Your task to perform on an android device: set default search engine in the chrome app Image 0: 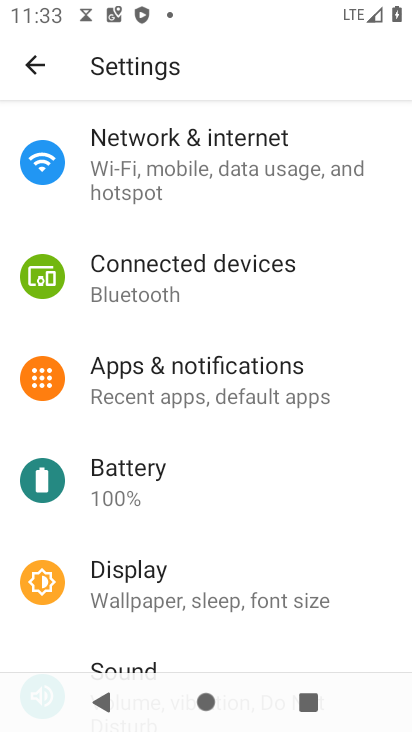
Step 0: press home button
Your task to perform on an android device: set default search engine in the chrome app Image 1: 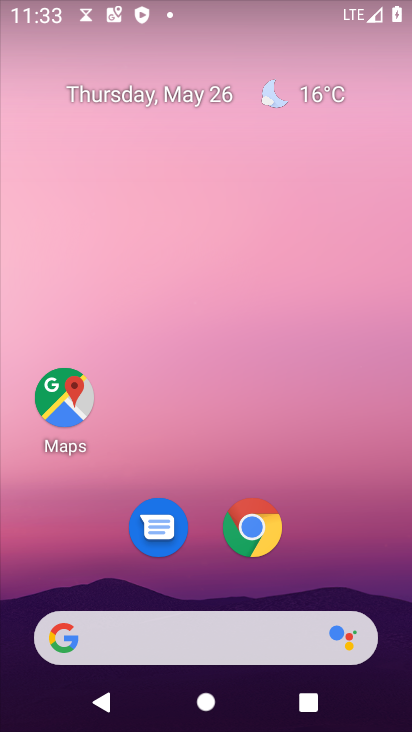
Step 1: click (251, 524)
Your task to perform on an android device: set default search engine in the chrome app Image 2: 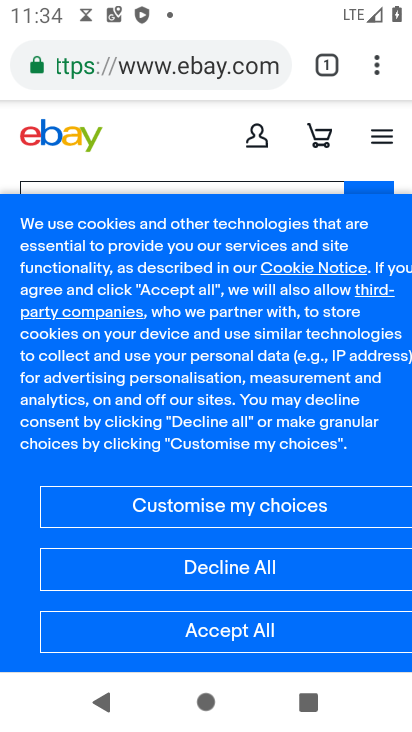
Step 2: click (369, 72)
Your task to perform on an android device: set default search engine in the chrome app Image 3: 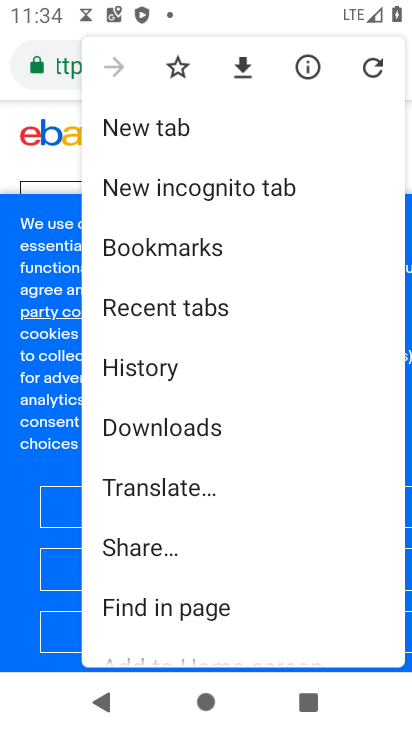
Step 3: drag from (201, 255) to (236, 21)
Your task to perform on an android device: set default search engine in the chrome app Image 4: 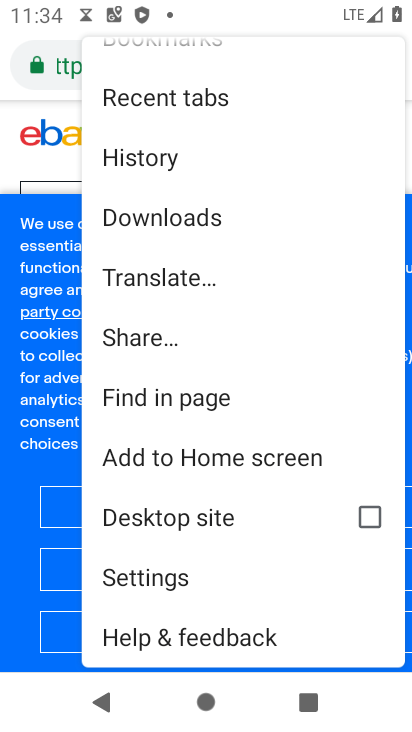
Step 4: click (171, 562)
Your task to perform on an android device: set default search engine in the chrome app Image 5: 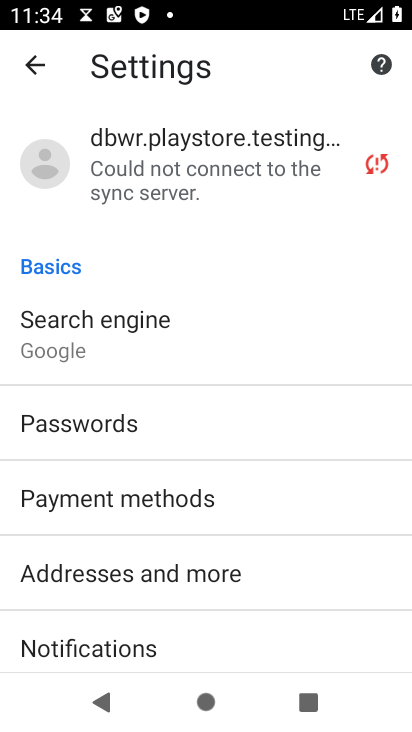
Step 5: click (90, 352)
Your task to perform on an android device: set default search engine in the chrome app Image 6: 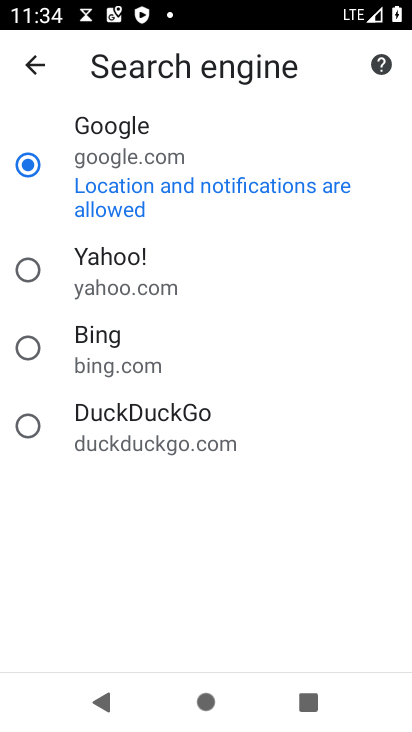
Step 6: click (132, 274)
Your task to perform on an android device: set default search engine in the chrome app Image 7: 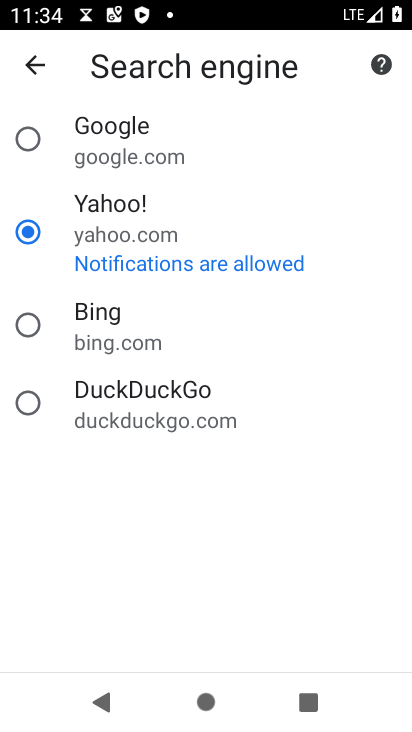
Step 7: task complete